Your task to perform on an android device: open app "Venmo" Image 0: 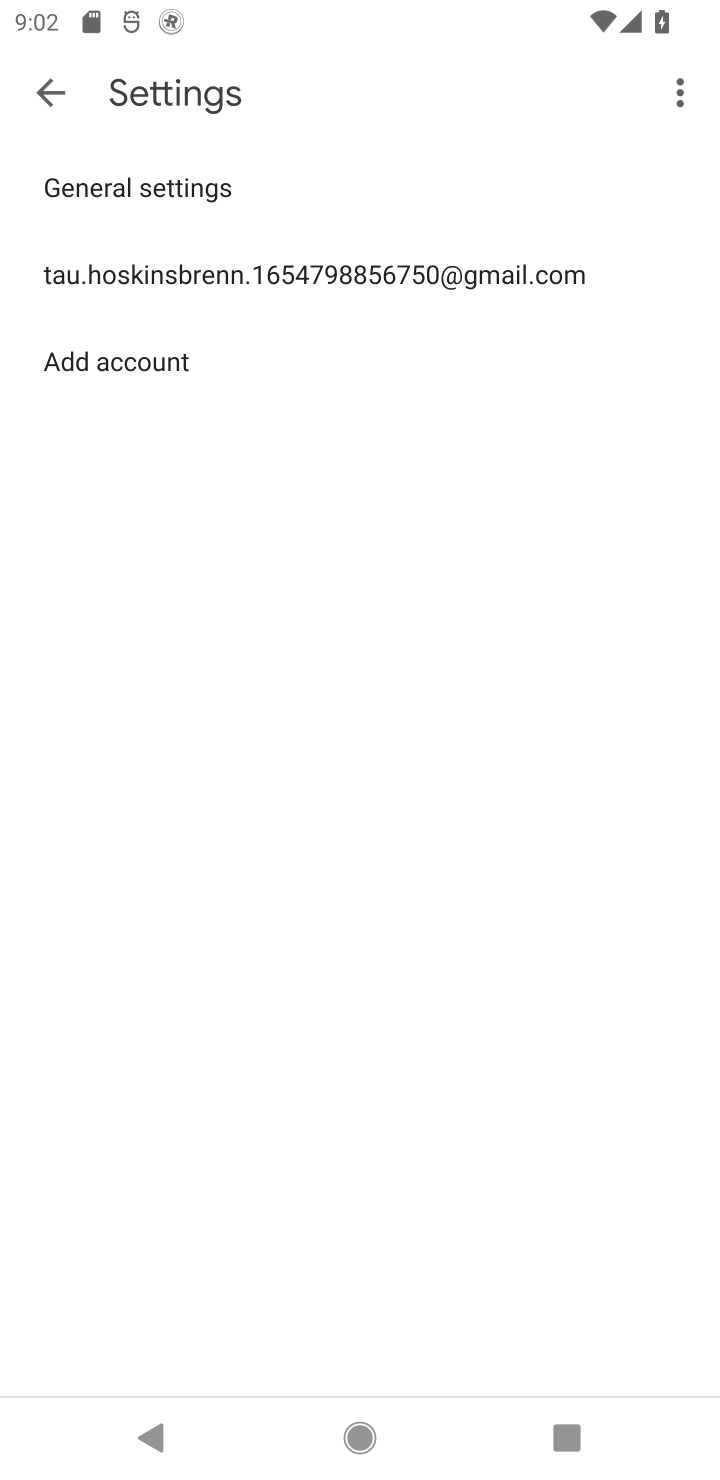
Step 0: press home button
Your task to perform on an android device: open app "Venmo" Image 1: 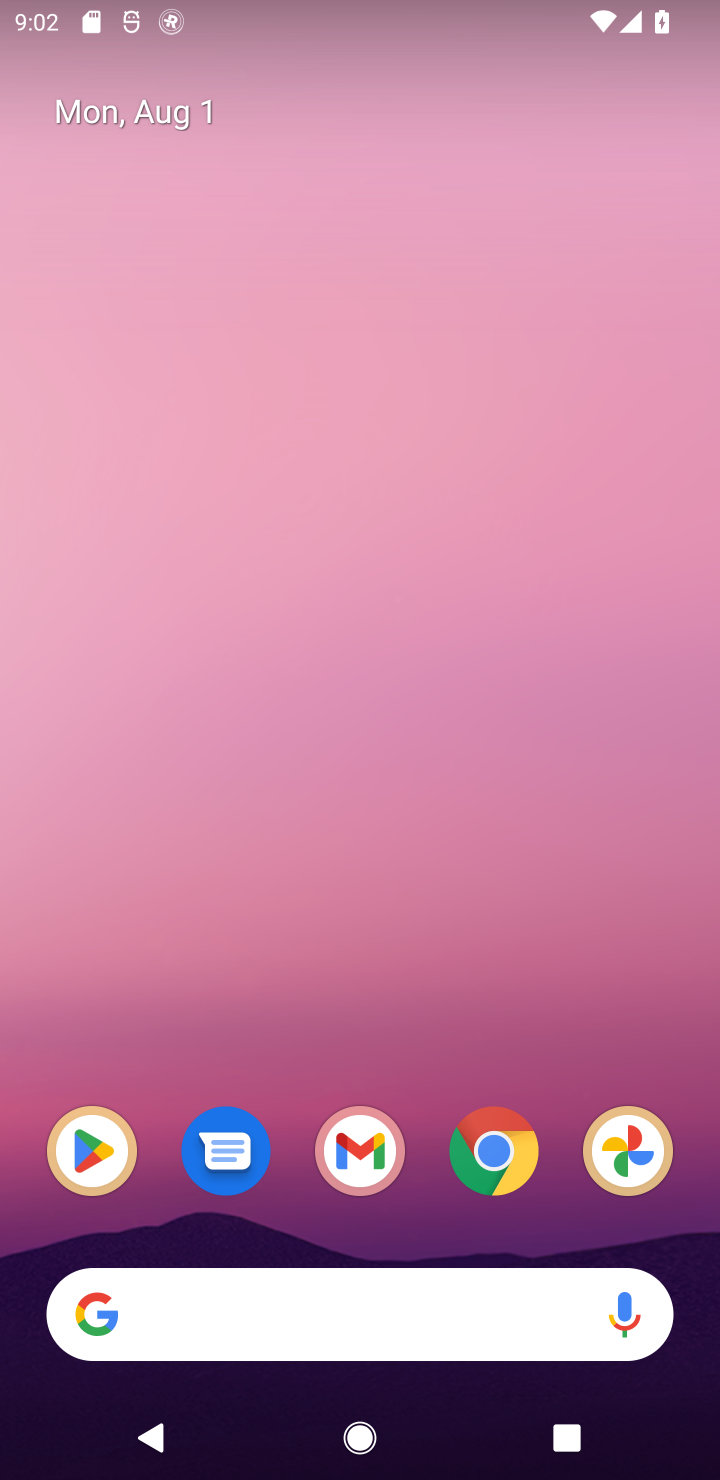
Step 1: click (130, 1169)
Your task to perform on an android device: open app "Venmo" Image 2: 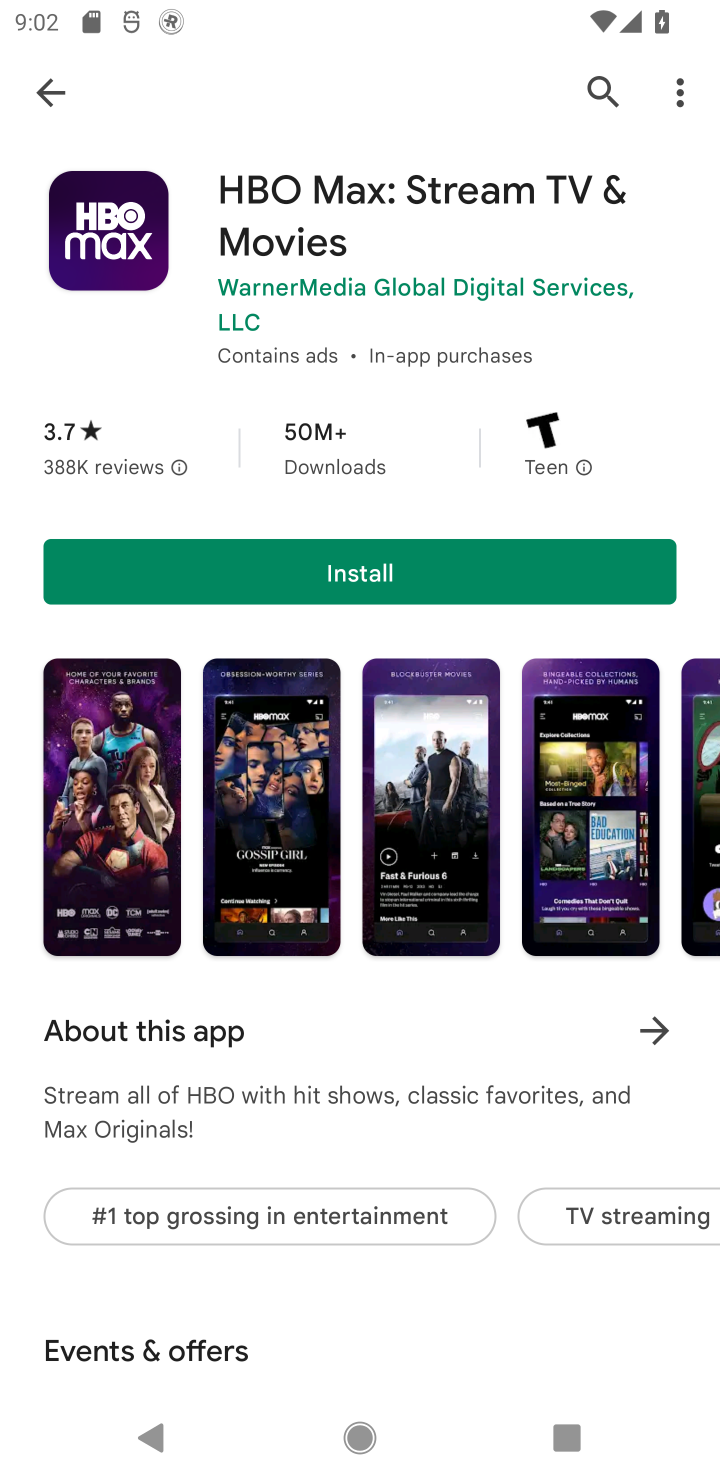
Step 2: click (593, 97)
Your task to perform on an android device: open app "Venmo" Image 3: 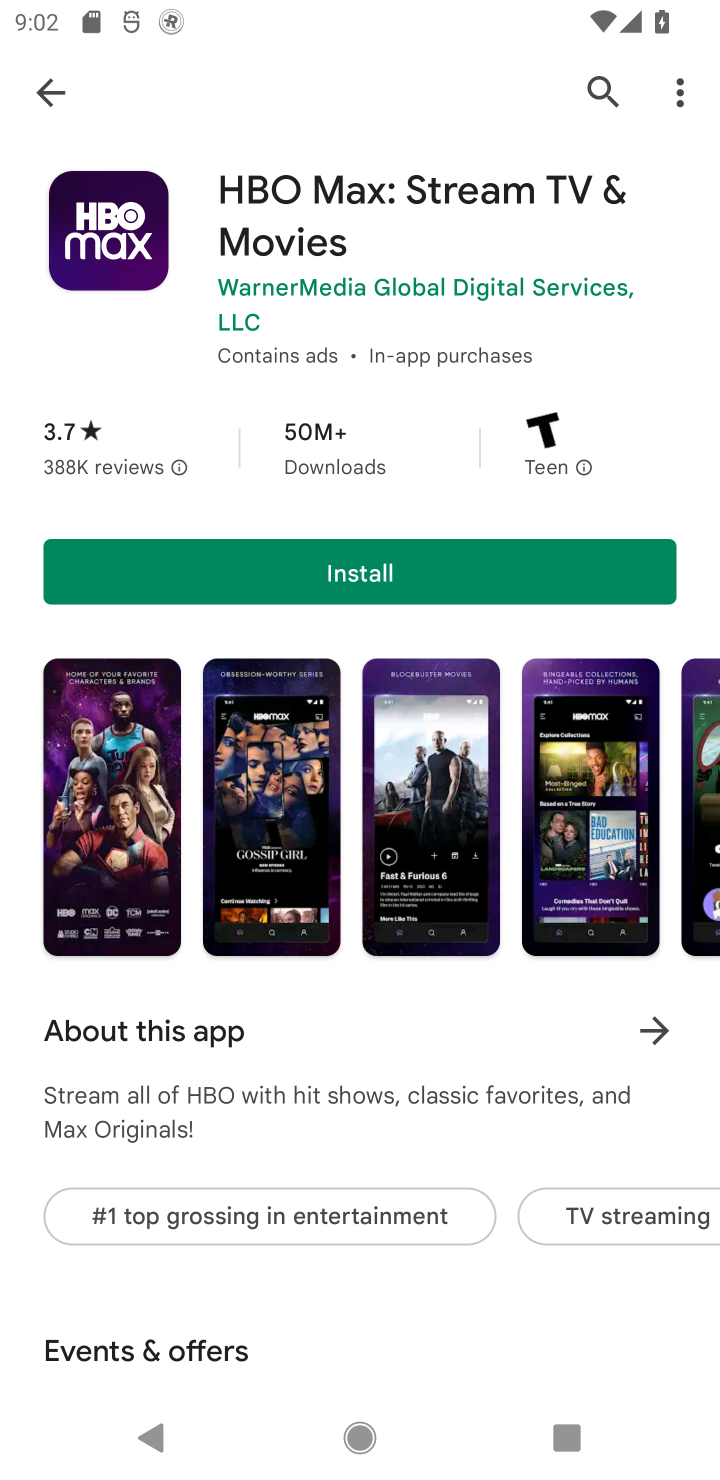
Step 3: click (614, 83)
Your task to perform on an android device: open app "Venmo" Image 4: 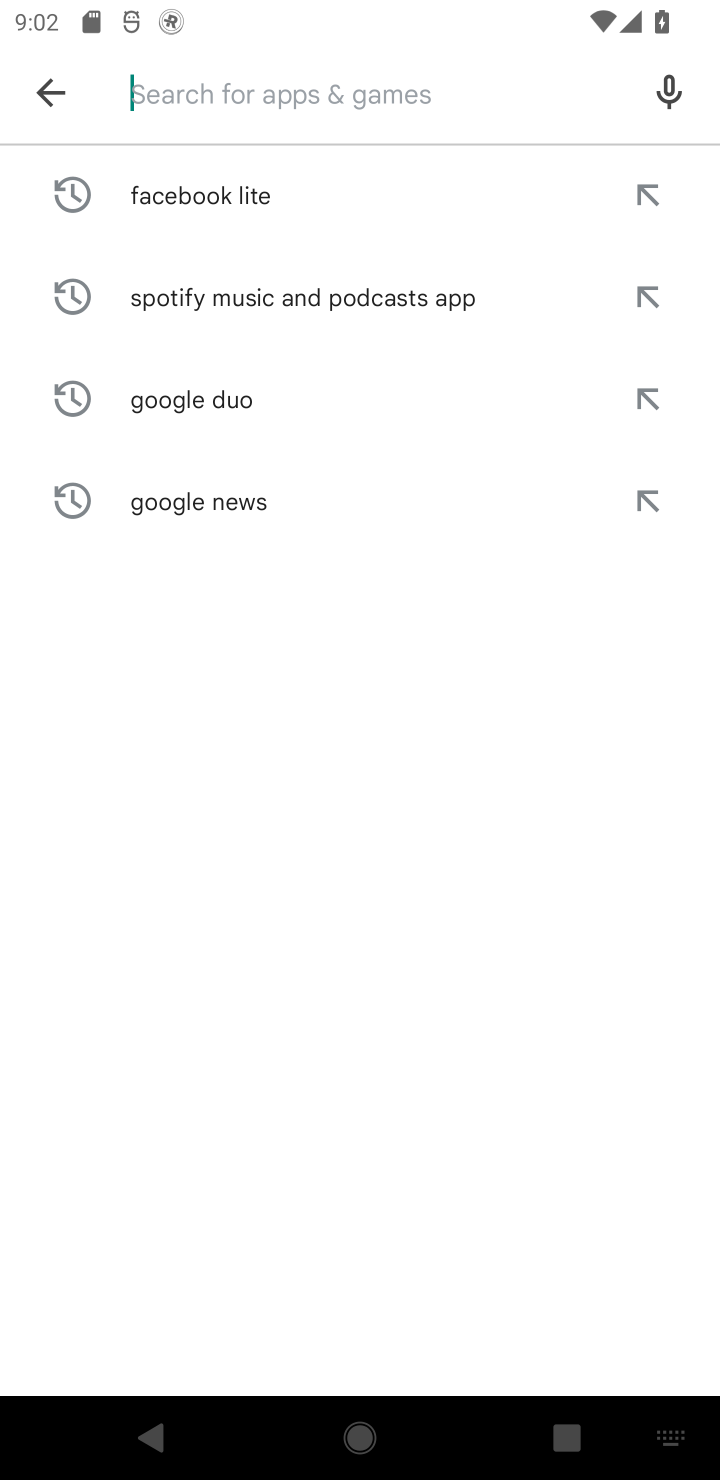
Step 4: type "Venmo"
Your task to perform on an android device: open app "Venmo" Image 5: 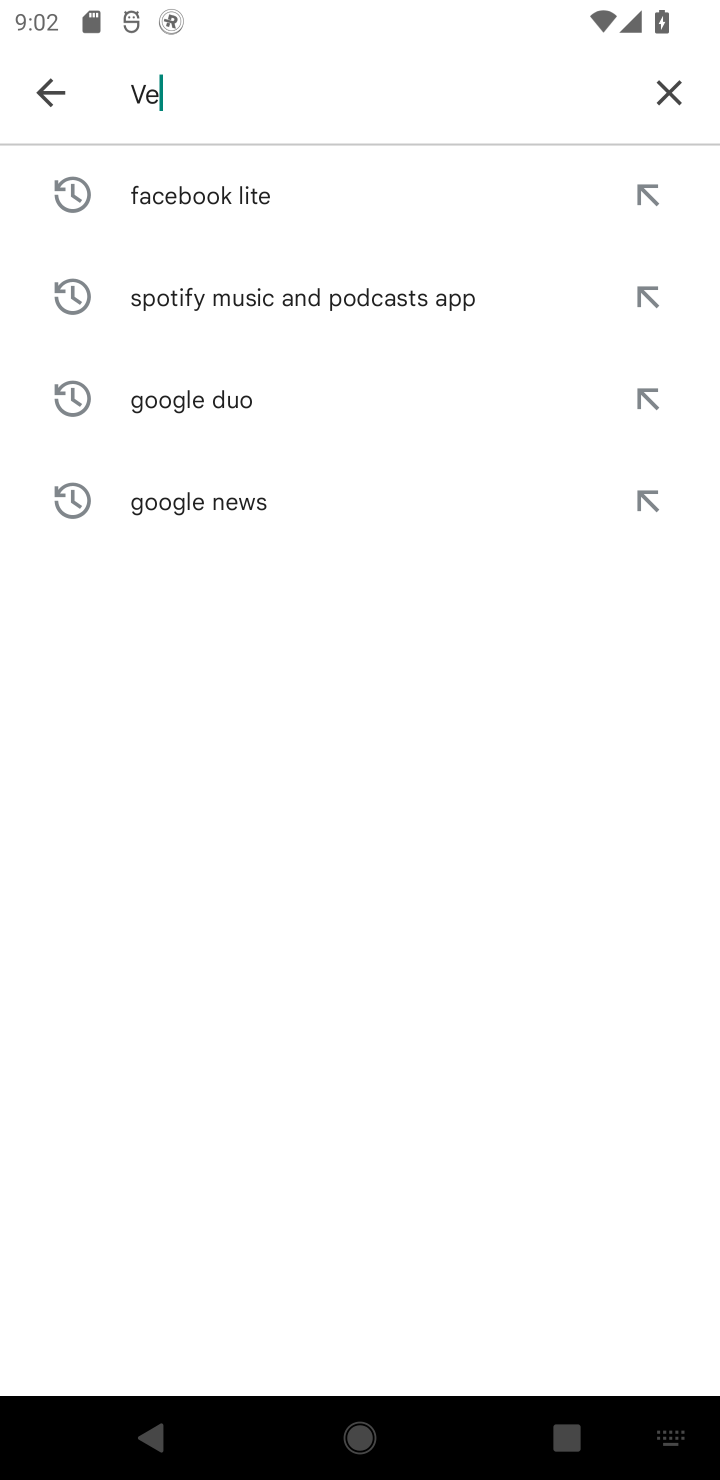
Step 5: type ""
Your task to perform on an android device: open app "Venmo" Image 6: 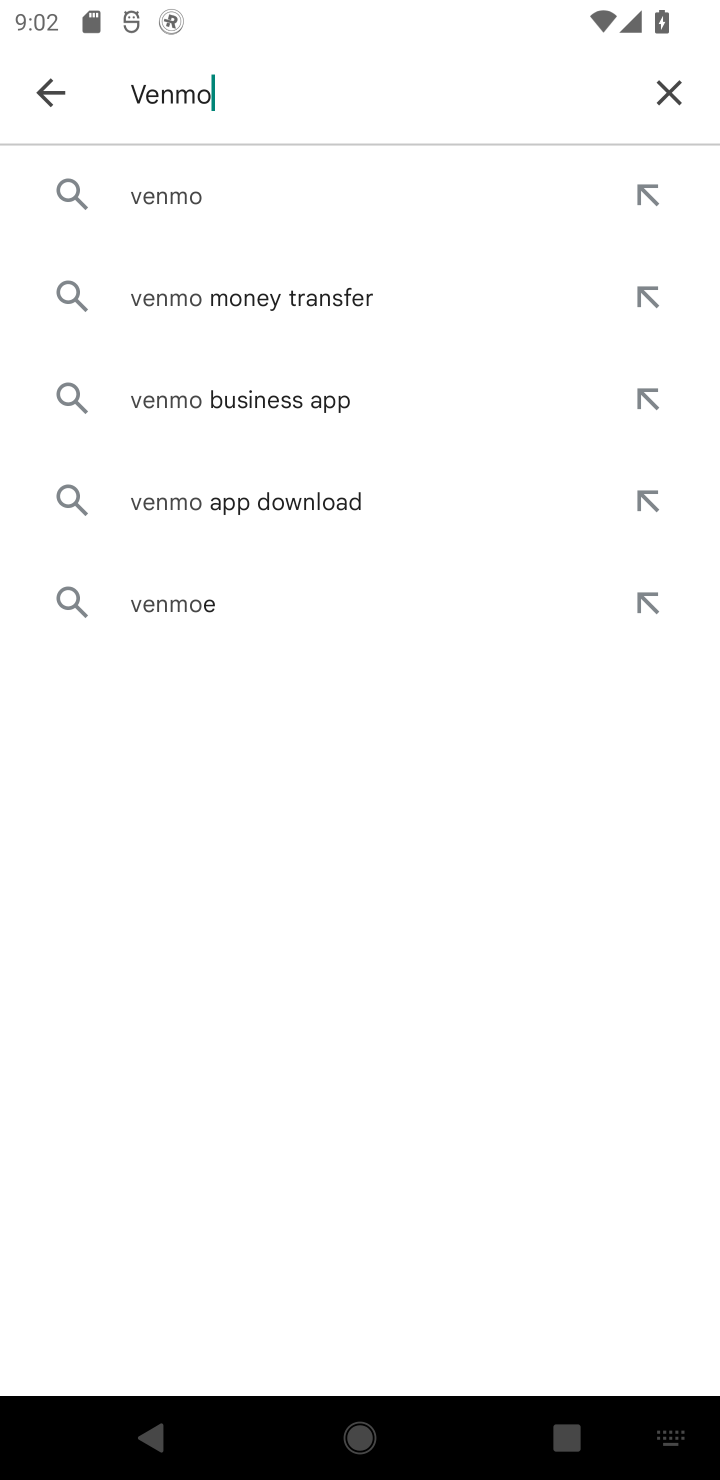
Step 6: click (202, 206)
Your task to perform on an android device: open app "Venmo" Image 7: 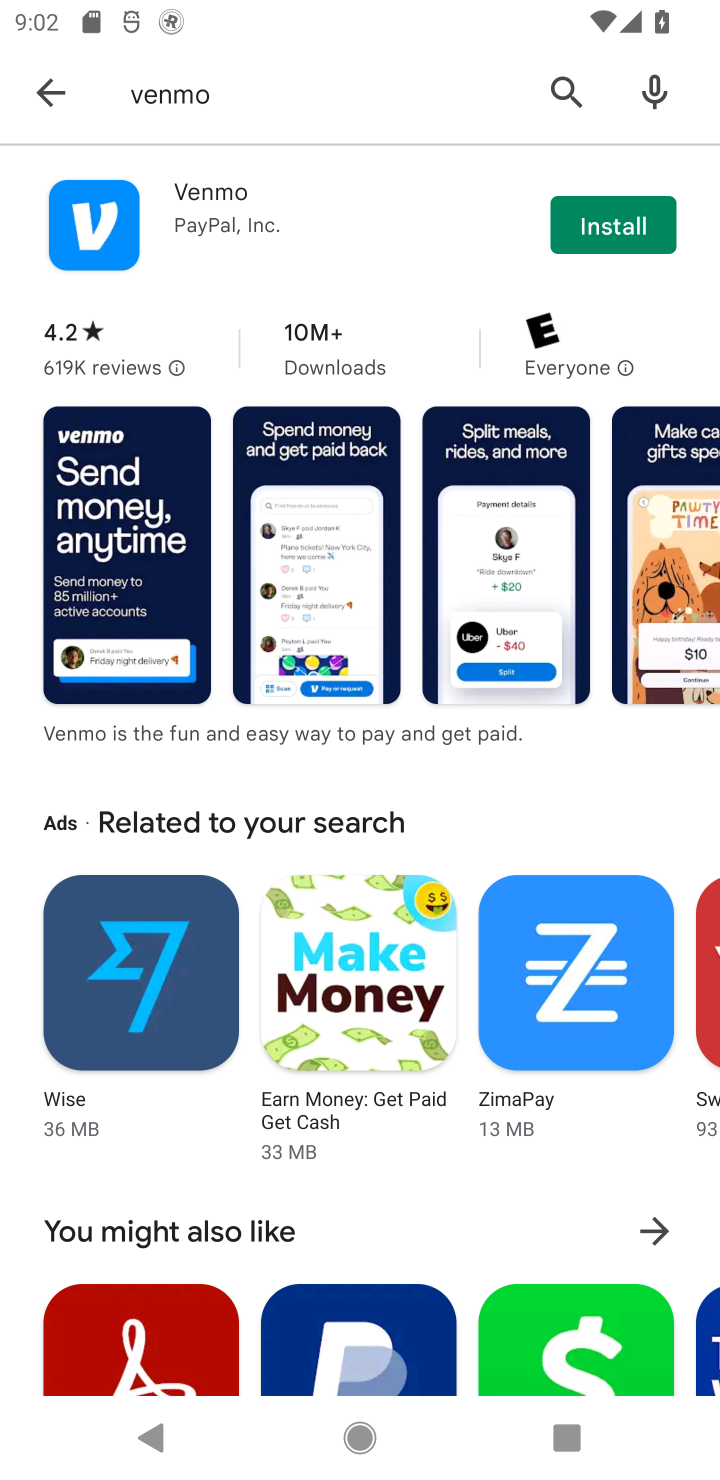
Step 7: task complete